Your task to perform on an android device: Is it going to rain this weekend? Image 0: 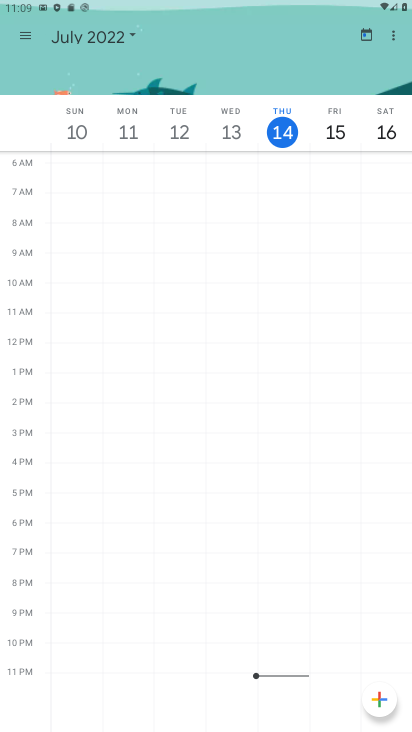
Step 0: task complete